Your task to perform on an android device: turn on the 24-hour format for clock Image 0: 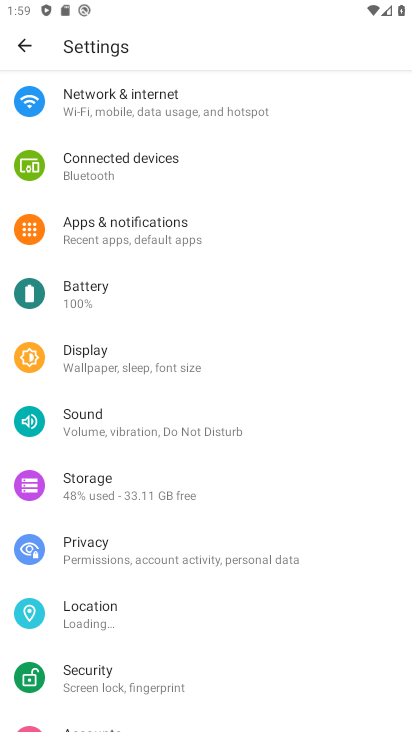
Step 0: press home button
Your task to perform on an android device: turn on the 24-hour format for clock Image 1: 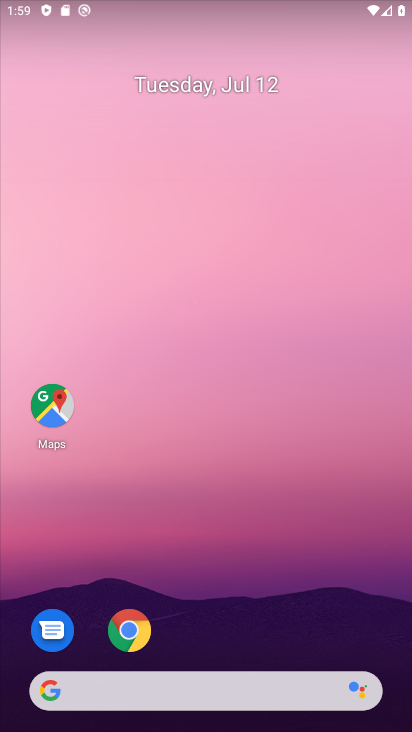
Step 1: drag from (203, 656) to (268, 47)
Your task to perform on an android device: turn on the 24-hour format for clock Image 2: 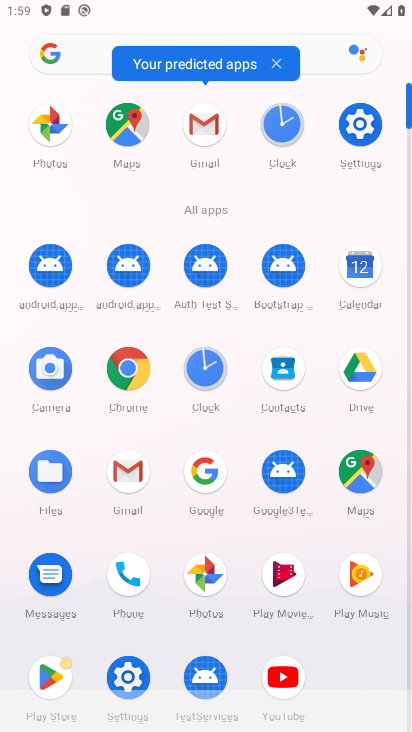
Step 2: click (218, 367)
Your task to perform on an android device: turn on the 24-hour format for clock Image 3: 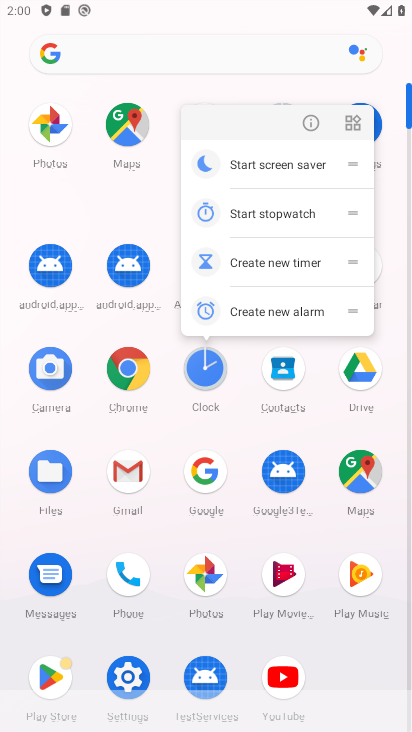
Step 3: click (213, 371)
Your task to perform on an android device: turn on the 24-hour format for clock Image 4: 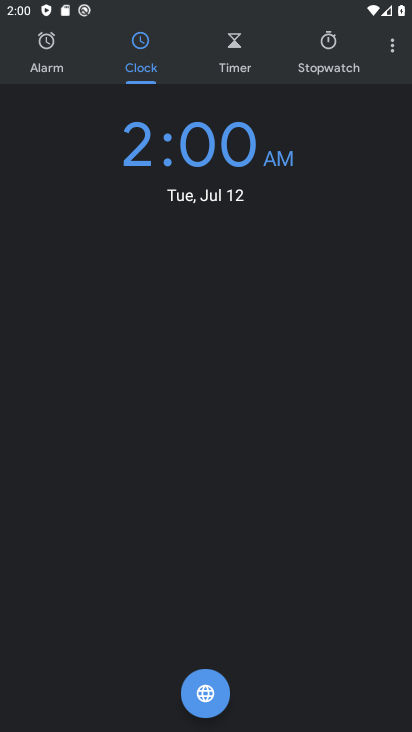
Step 4: click (232, 366)
Your task to perform on an android device: turn on the 24-hour format for clock Image 5: 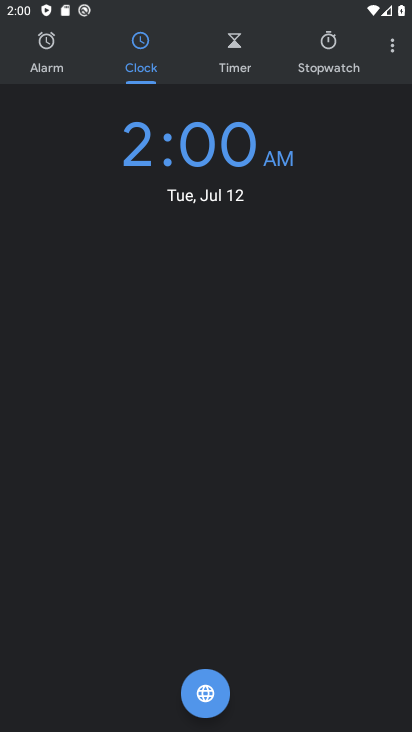
Step 5: click (397, 48)
Your task to perform on an android device: turn on the 24-hour format for clock Image 6: 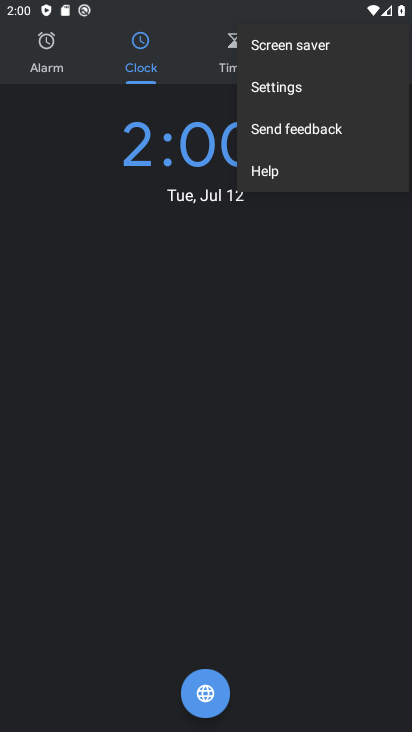
Step 6: click (351, 92)
Your task to perform on an android device: turn on the 24-hour format for clock Image 7: 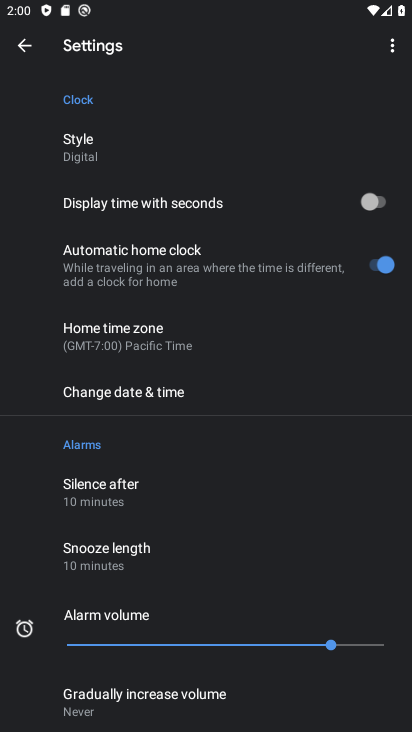
Step 7: click (189, 389)
Your task to perform on an android device: turn on the 24-hour format for clock Image 8: 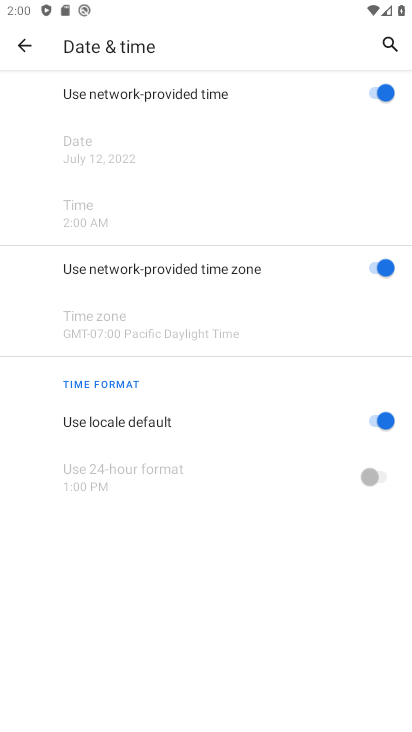
Step 8: click (370, 417)
Your task to perform on an android device: turn on the 24-hour format for clock Image 9: 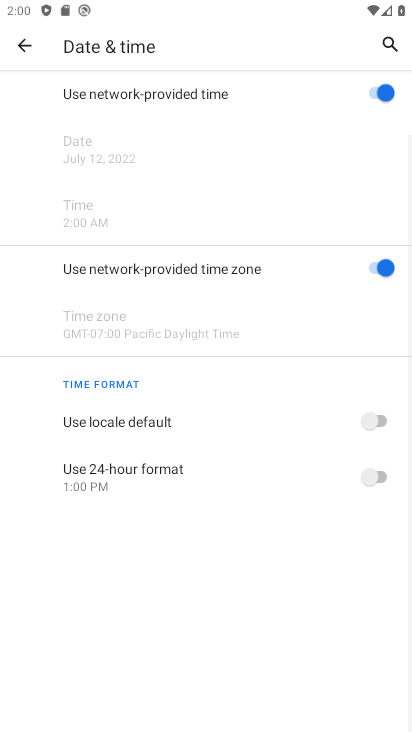
Step 9: click (389, 471)
Your task to perform on an android device: turn on the 24-hour format for clock Image 10: 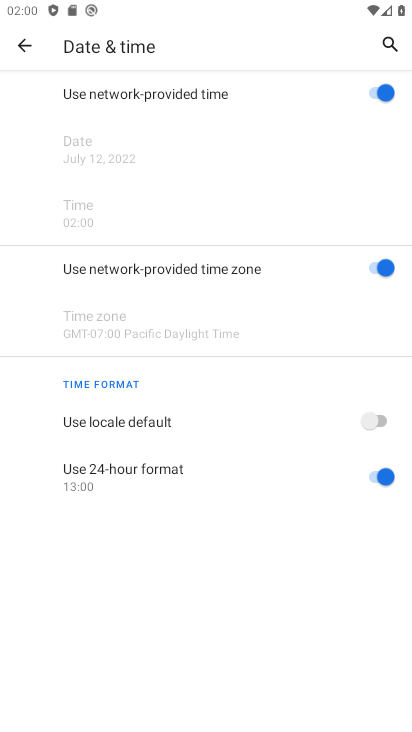
Step 10: task complete